Your task to perform on an android device: change notifications settings Image 0: 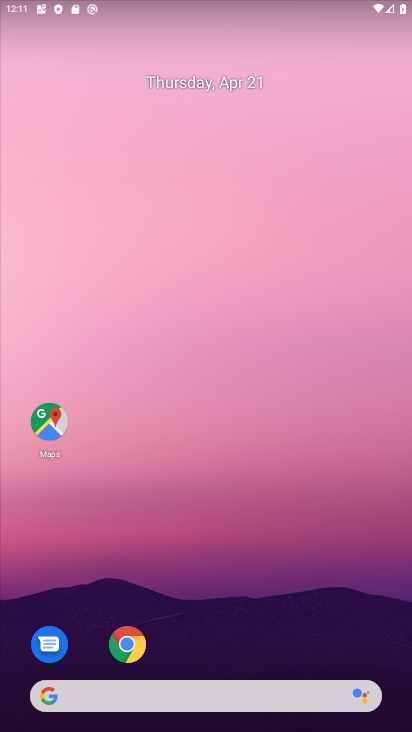
Step 0: drag from (239, 529) to (352, 68)
Your task to perform on an android device: change notifications settings Image 1: 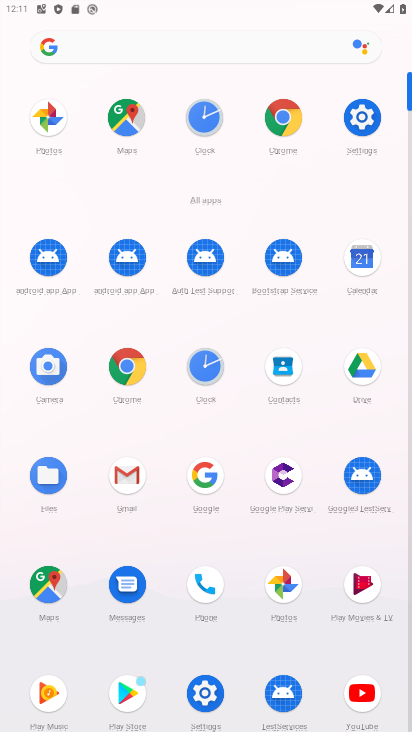
Step 1: click (360, 114)
Your task to perform on an android device: change notifications settings Image 2: 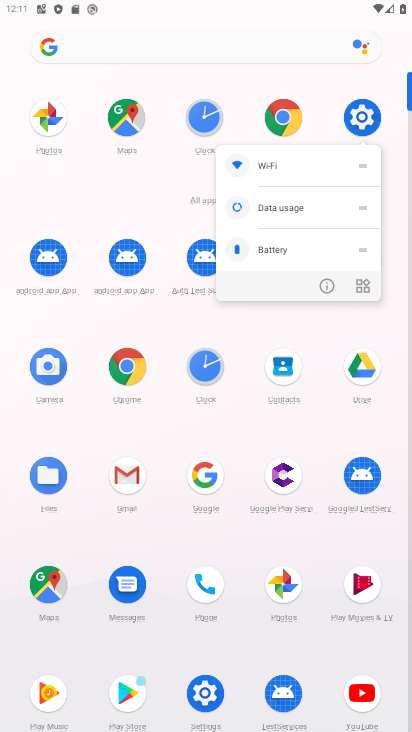
Step 2: click (366, 110)
Your task to perform on an android device: change notifications settings Image 3: 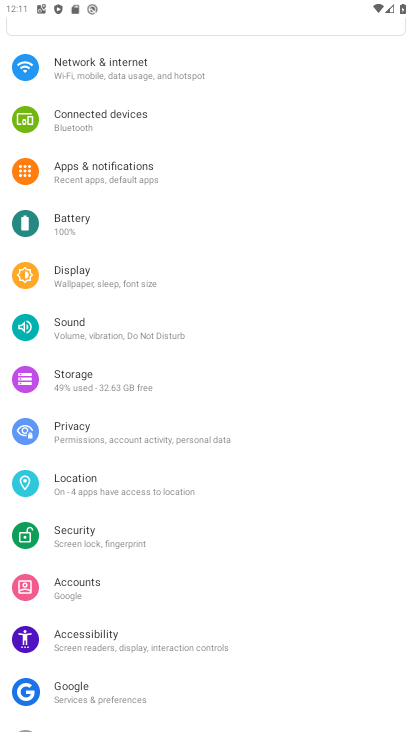
Step 3: click (149, 180)
Your task to perform on an android device: change notifications settings Image 4: 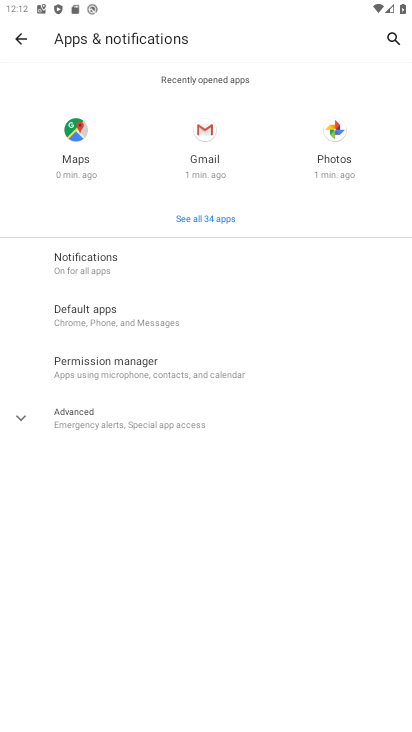
Step 4: click (137, 259)
Your task to perform on an android device: change notifications settings Image 5: 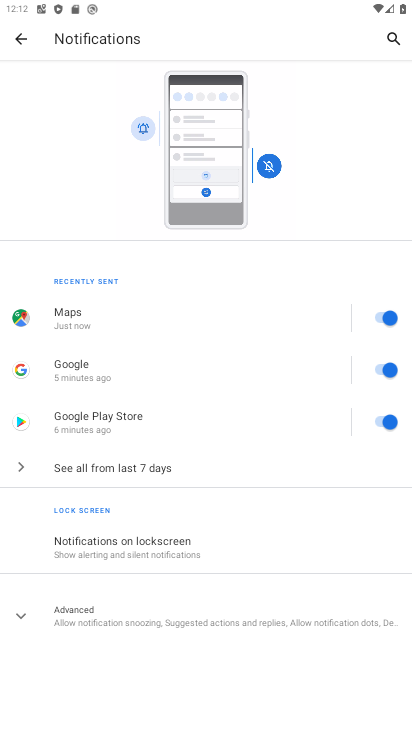
Step 5: click (132, 608)
Your task to perform on an android device: change notifications settings Image 6: 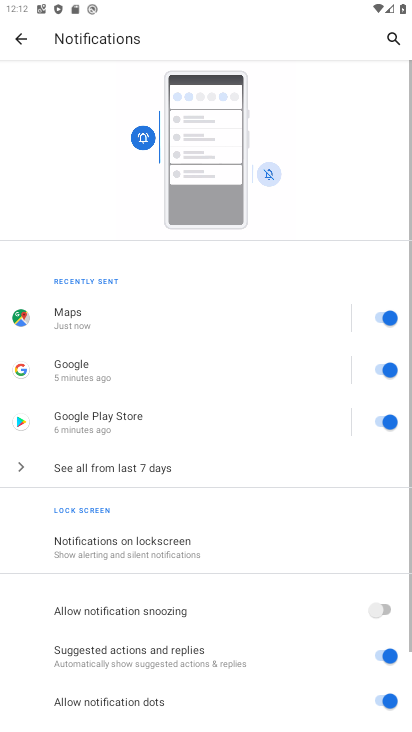
Step 6: drag from (145, 602) to (252, 240)
Your task to perform on an android device: change notifications settings Image 7: 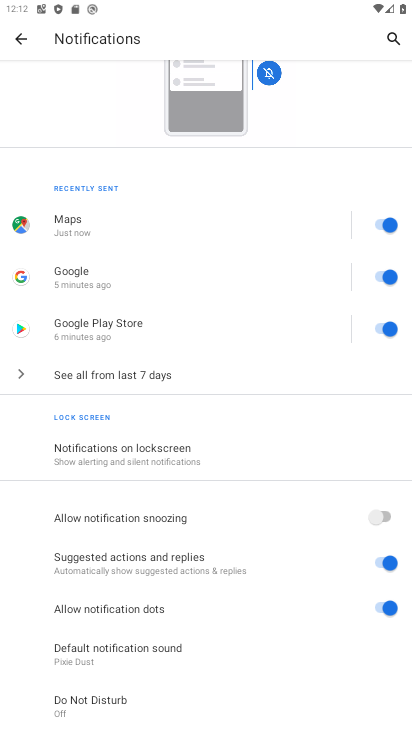
Step 7: click (383, 513)
Your task to perform on an android device: change notifications settings Image 8: 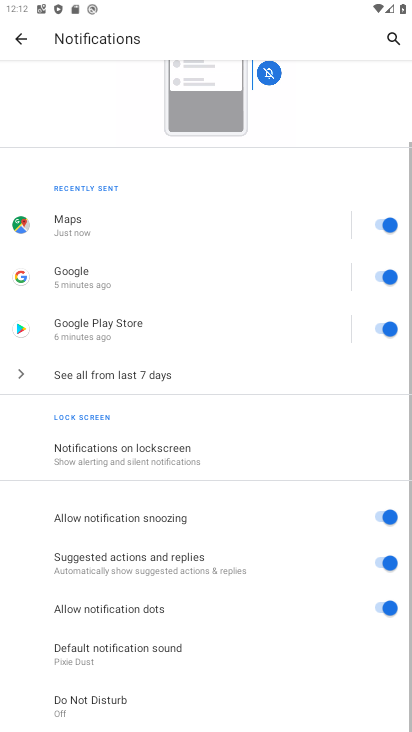
Step 8: task complete